Your task to perform on an android device: Open calendar and show me the fourth week of next month Image 0: 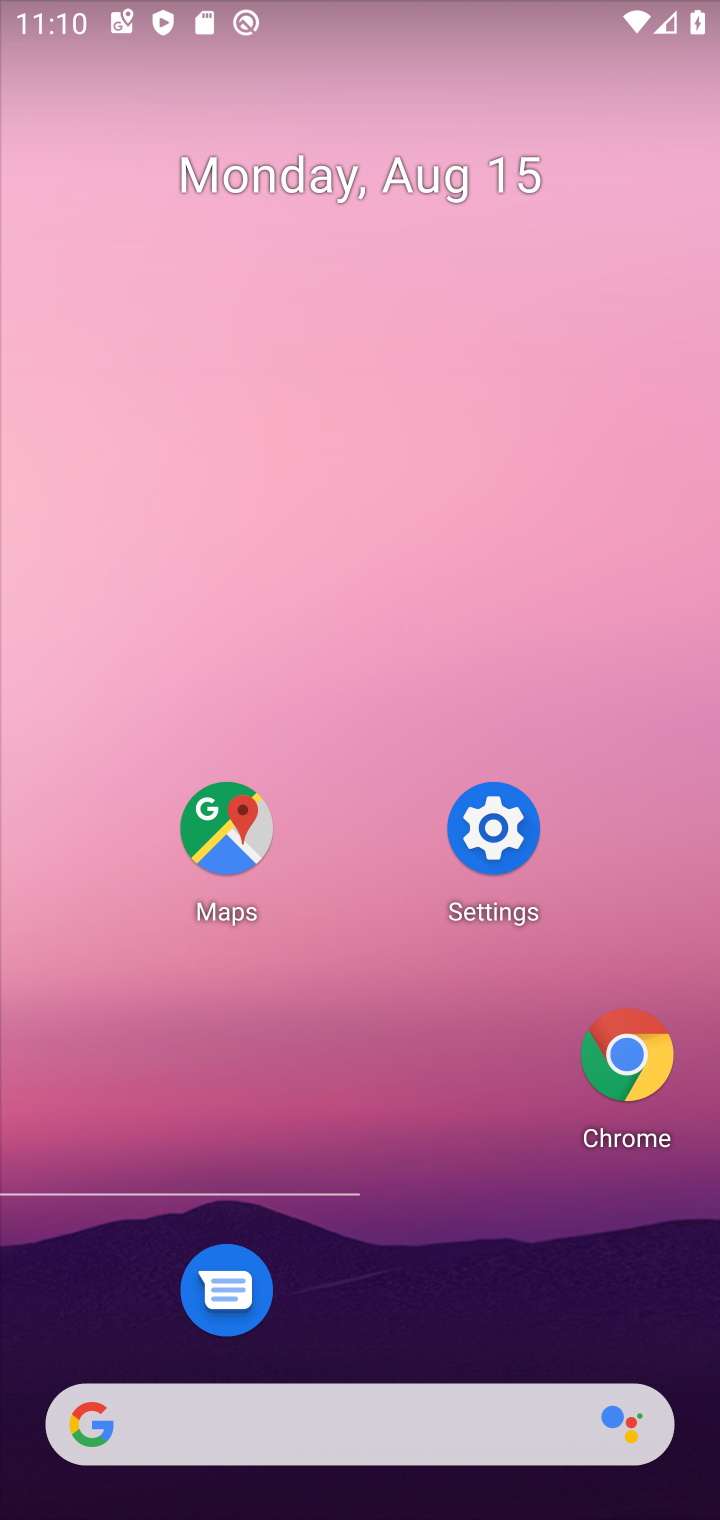
Step 0: drag from (382, 1290) to (510, 250)
Your task to perform on an android device: Open calendar and show me the fourth week of next month Image 1: 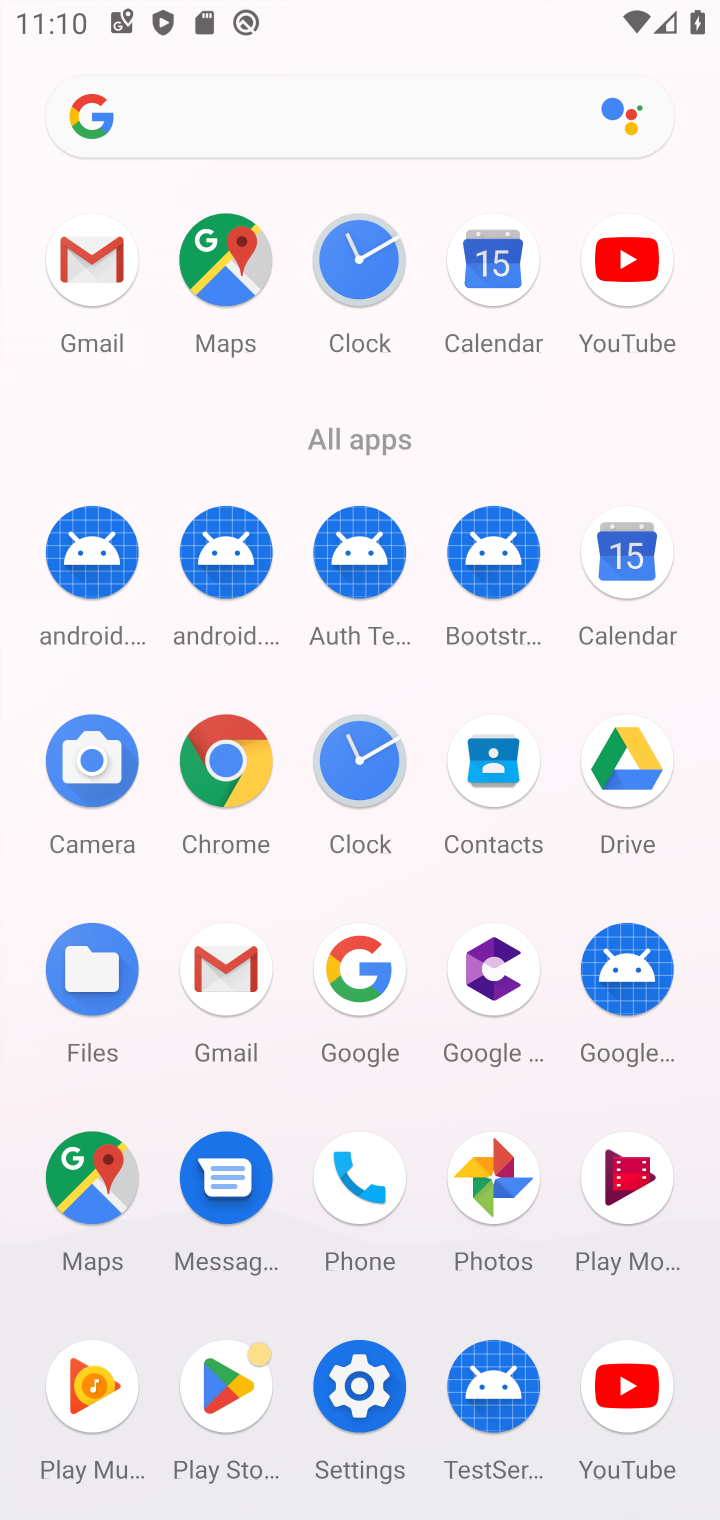
Step 1: click (627, 550)
Your task to perform on an android device: Open calendar and show me the fourth week of next month Image 2: 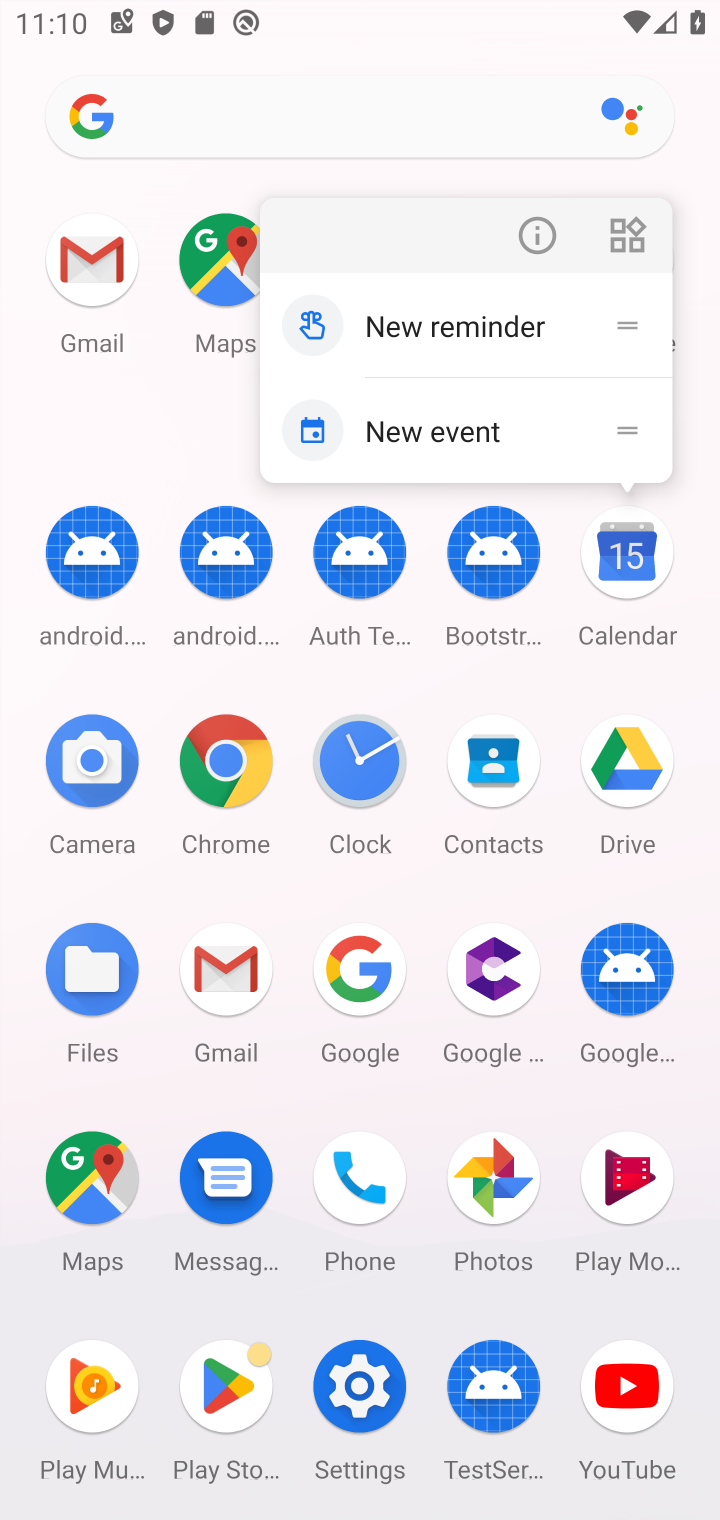
Step 2: click (627, 548)
Your task to perform on an android device: Open calendar and show me the fourth week of next month Image 3: 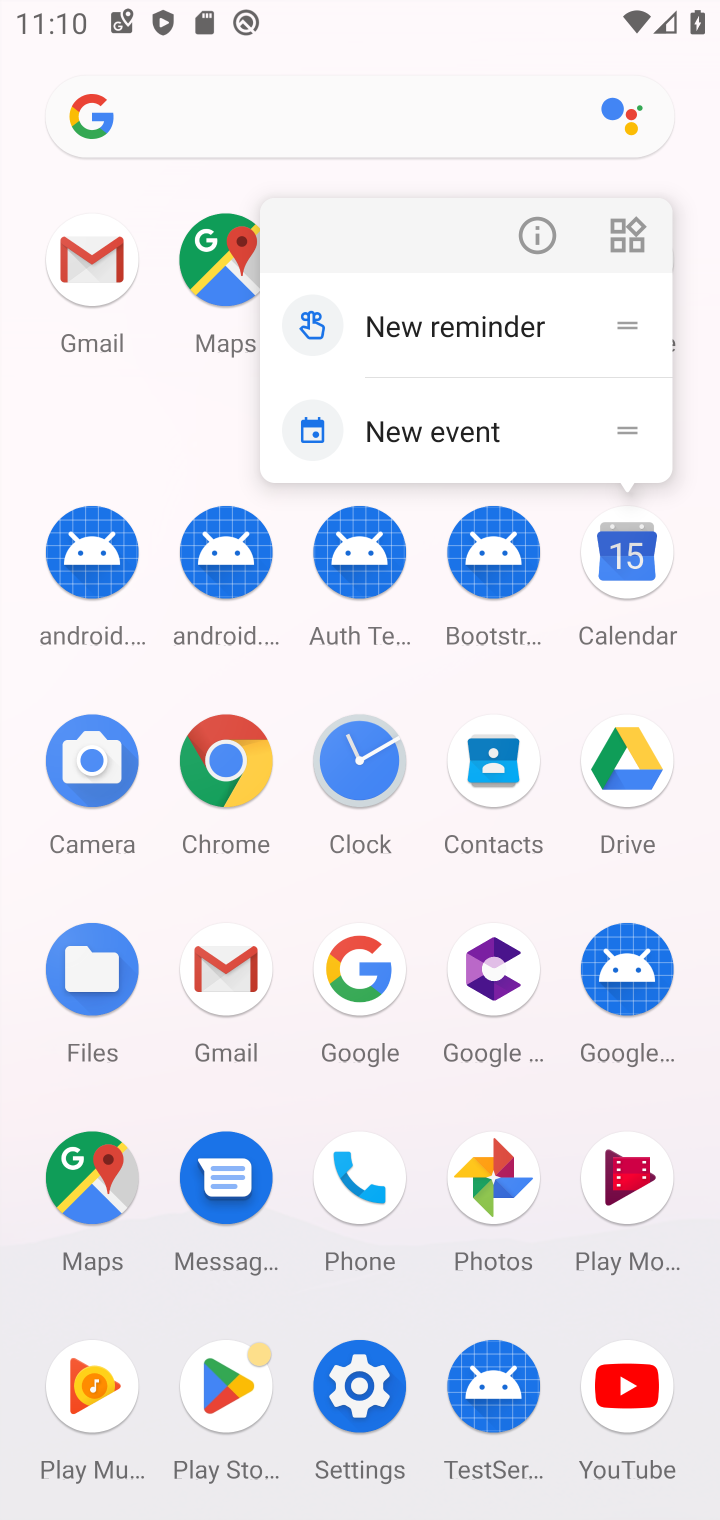
Step 3: click (627, 566)
Your task to perform on an android device: Open calendar and show me the fourth week of next month Image 4: 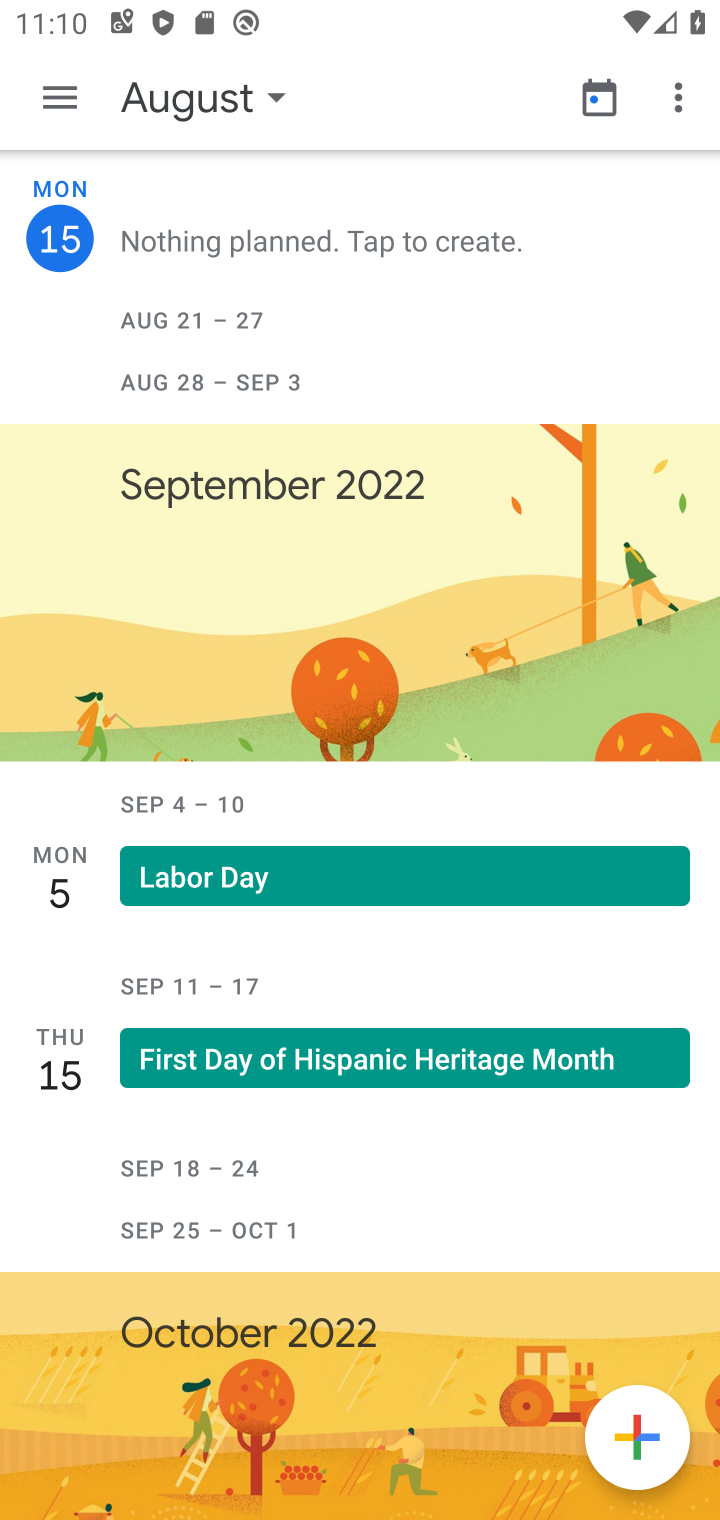
Step 4: drag from (327, 803) to (501, 240)
Your task to perform on an android device: Open calendar and show me the fourth week of next month Image 5: 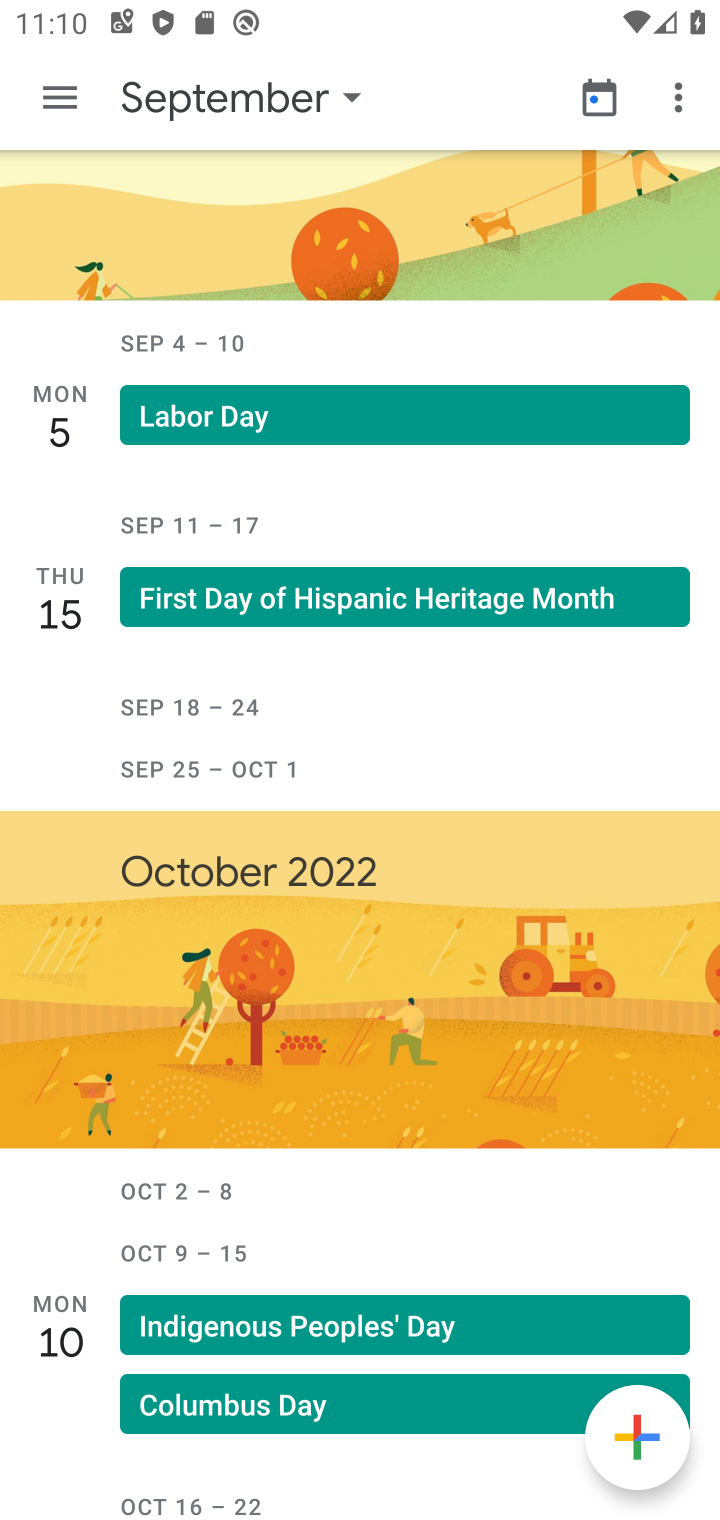
Step 5: click (201, 86)
Your task to perform on an android device: Open calendar and show me the fourth week of next month Image 6: 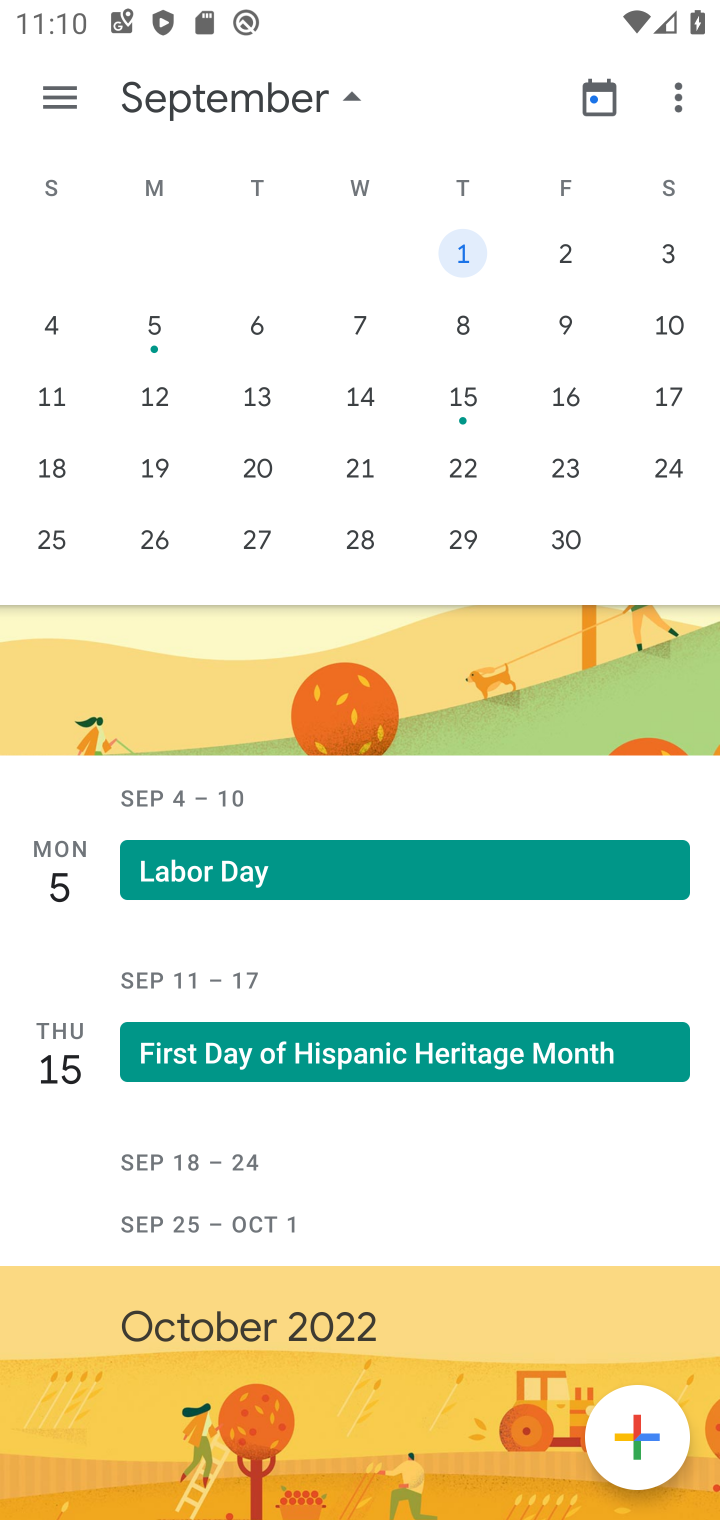
Step 6: click (70, 467)
Your task to perform on an android device: Open calendar and show me the fourth week of next month Image 7: 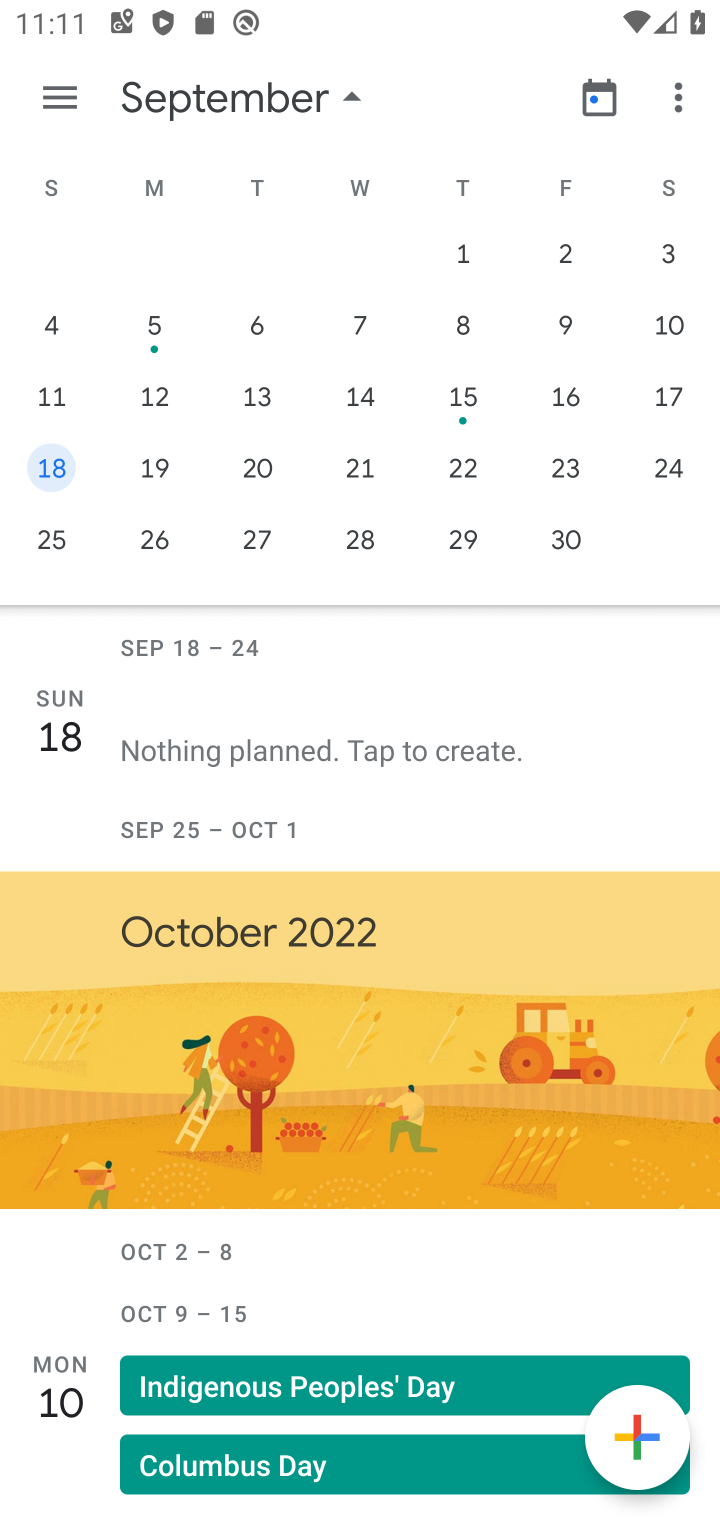
Step 7: click (55, 88)
Your task to perform on an android device: Open calendar and show me the fourth week of next month Image 8: 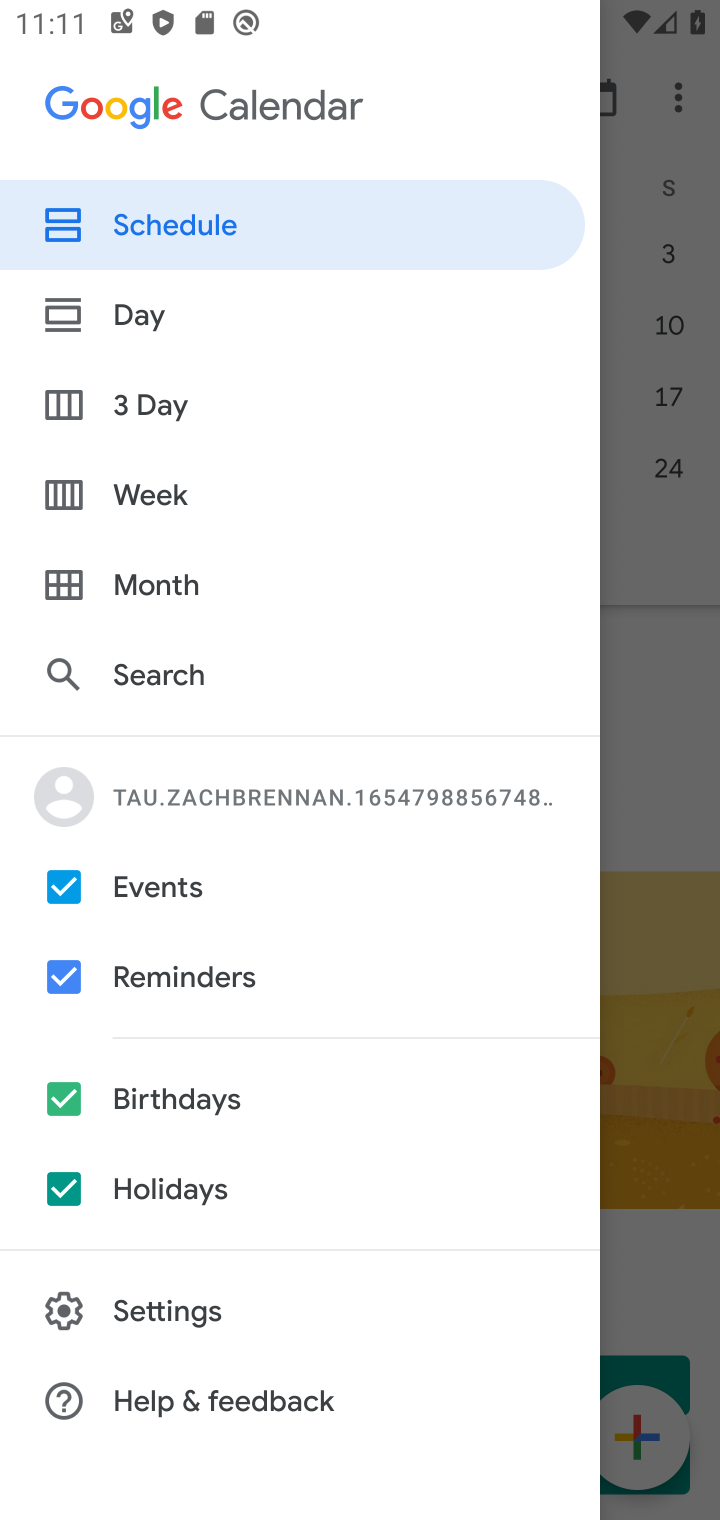
Step 8: click (133, 502)
Your task to perform on an android device: Open calendar and show me the fourth week of next month Image 9: 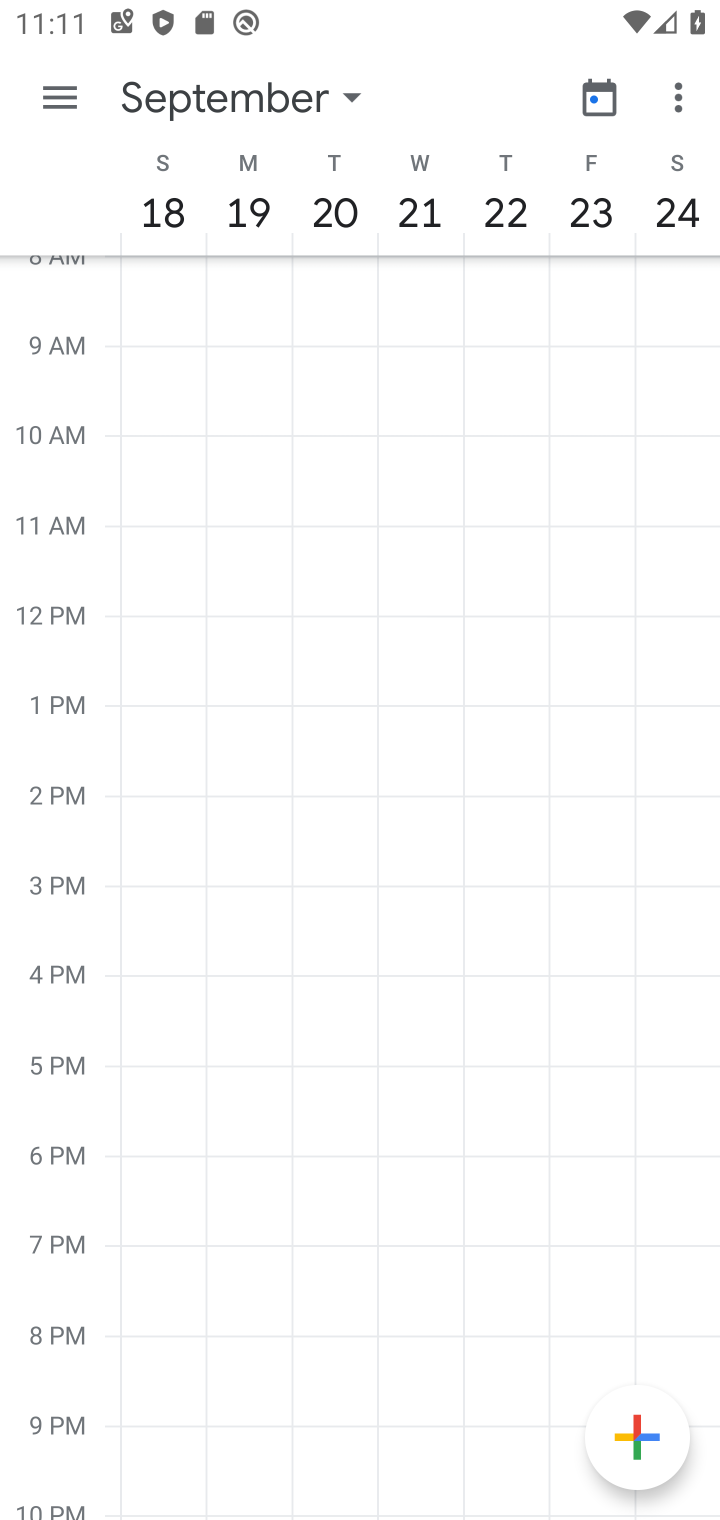
Step 9: task complete